Your task to perform on an android device: add a contact Image 0: 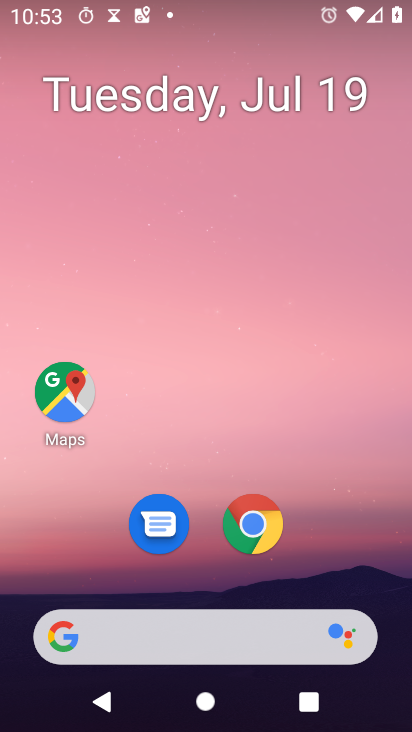
Step 0: drag from (246, 644) to (395, 101)
Your task to perform on an android device: add a contact Image 1: 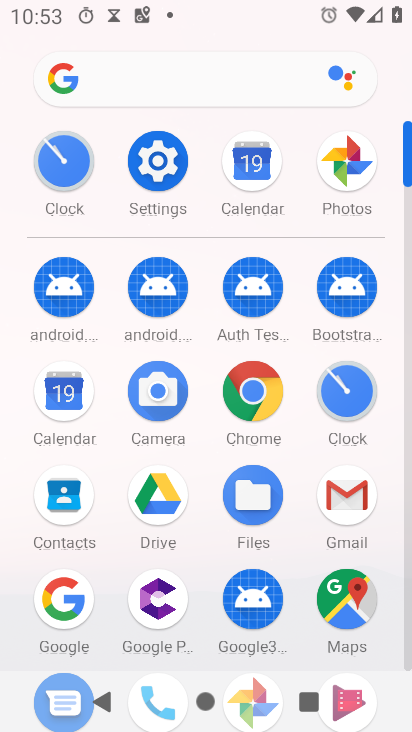
Step 1: click (66, 507)
Your task to perform on an android device: add a contact Image 2: 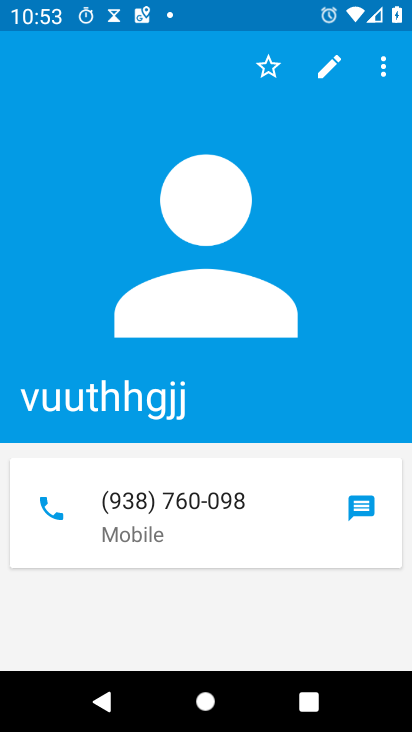
Step 2: press back button
Your task to perform on an android device: add a contact Image 3: 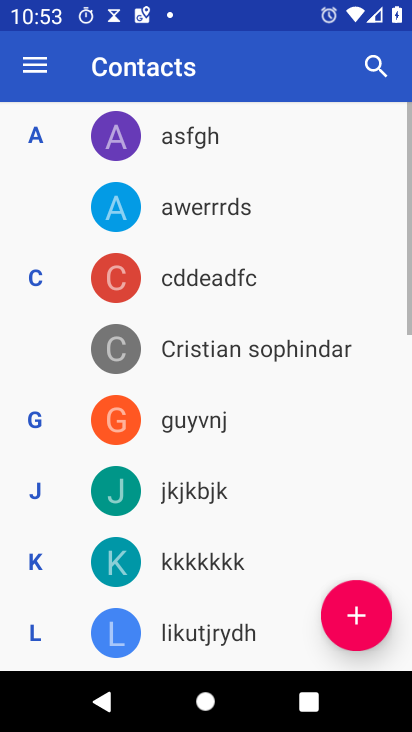
Step 3: click (357, 605)
Your task to perform on an android device: add a contact Image 4: 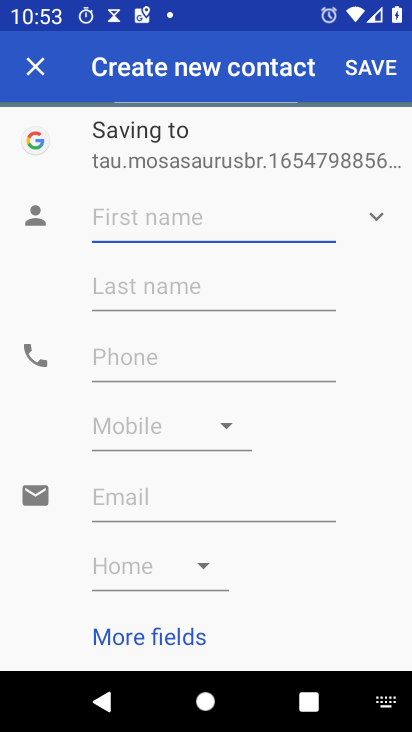
Step 4: click (134, 217)
Your task to perform on an android device: add a contact Image 5: 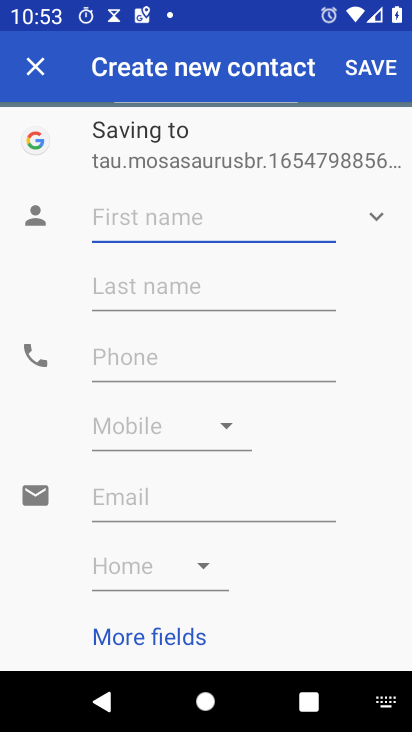
Step 5: type "nkjuibb"
Your task to perform on an android device: add a contact Image 6: 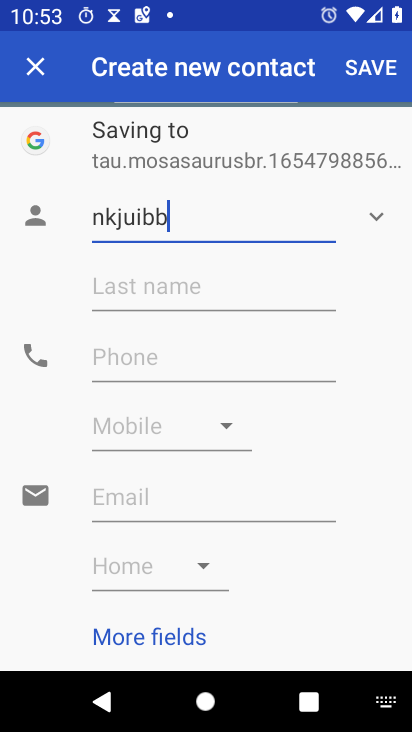
Step 6: click (176, 363)
Your task to perform on an android device: add a contact Image 7: 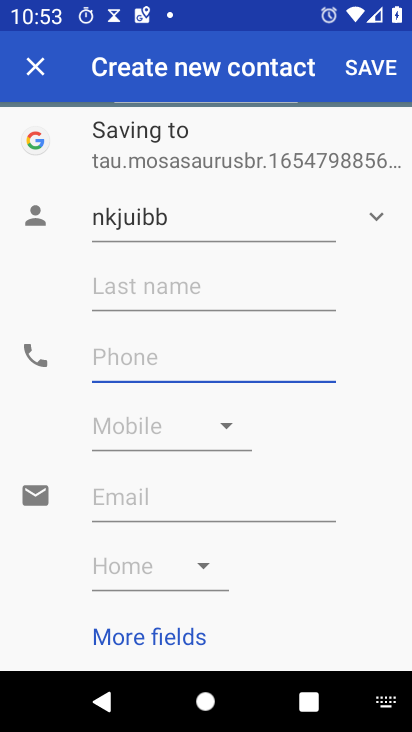
Step 7: type "10937656748"
Your task to perform on an android device: add a contact Image 8: 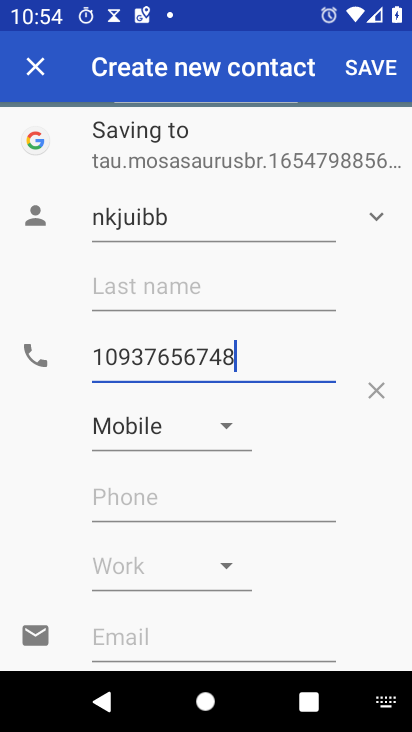
Step 8: click (365, 66)
Your task to perform on an android device: add a contact Image 9: 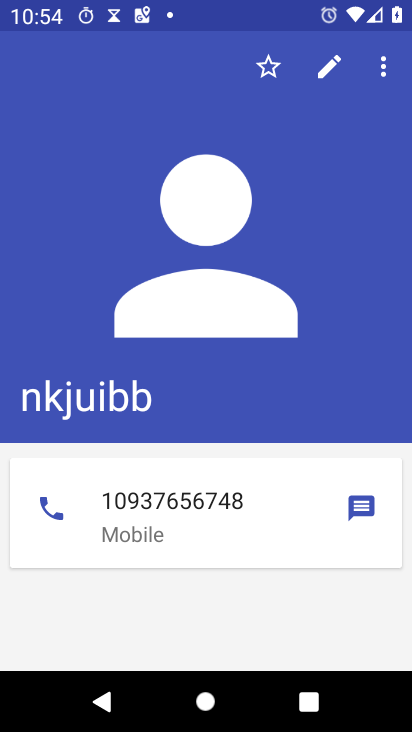
Step 9: task complete